Your task to perform on an android device: turn on wifi Image 0: 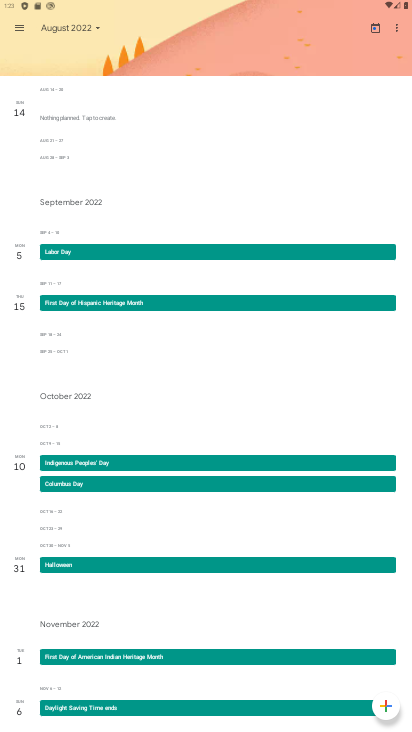
Step 0: press back button
Your task to perform on an android device: turn on wifi Image 1: 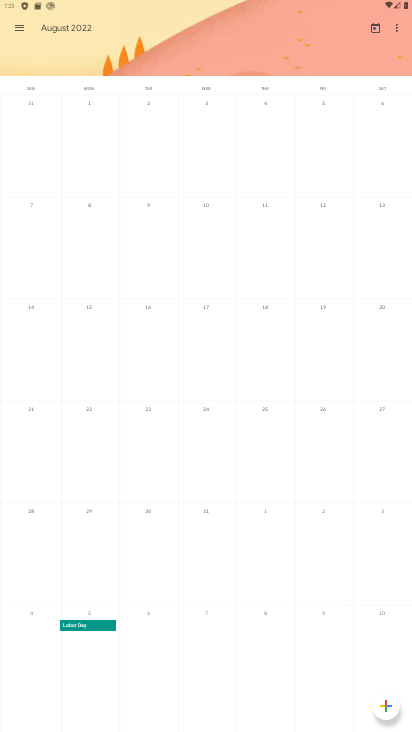
Step 1: press home button
Your task to perform on an android device: turn on wifi Image 2: 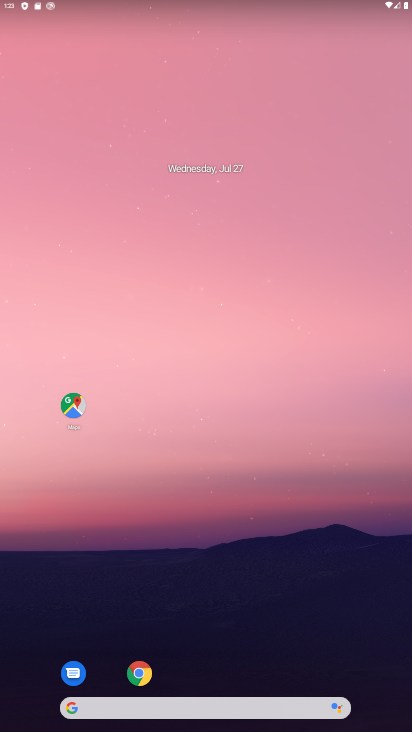
Step 2: drag from (261, 633) to (267, 43)
Your task to perform on an android device: turn on wifi Image 3: 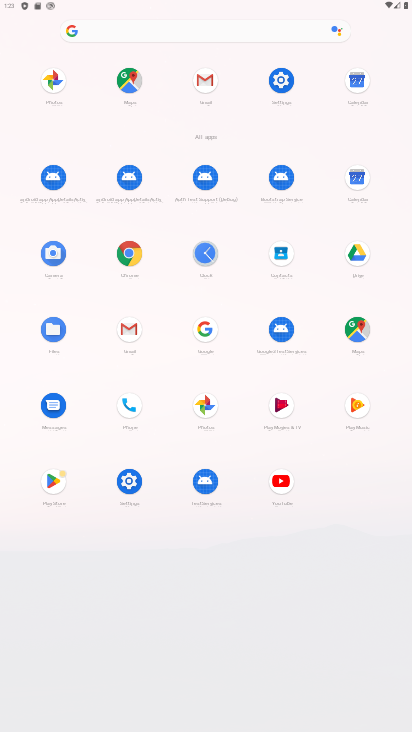
Step 3: click (121, 479)
Your task to perform on an android device: turn on wifi Image 4: 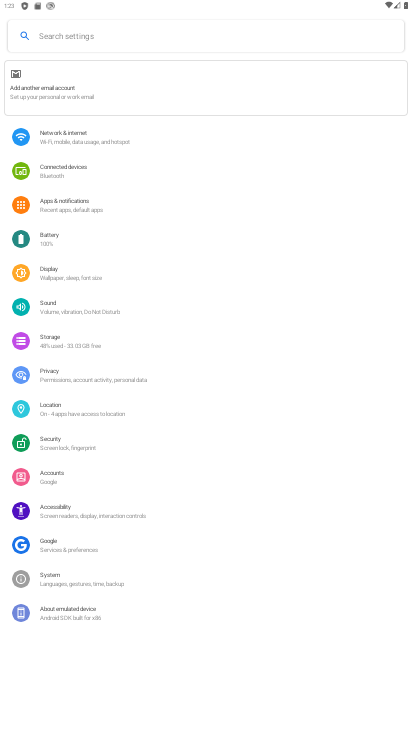
Step 4: click (55, 133)
Your task to perform on an android device: turn on wifi Image 5: 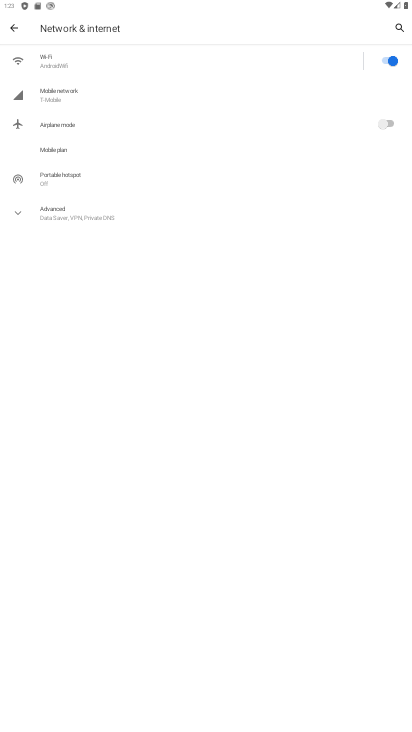
Step 5: task complete